Your task to perform on an android device: turn off smart reply in the gmail app Image 0: 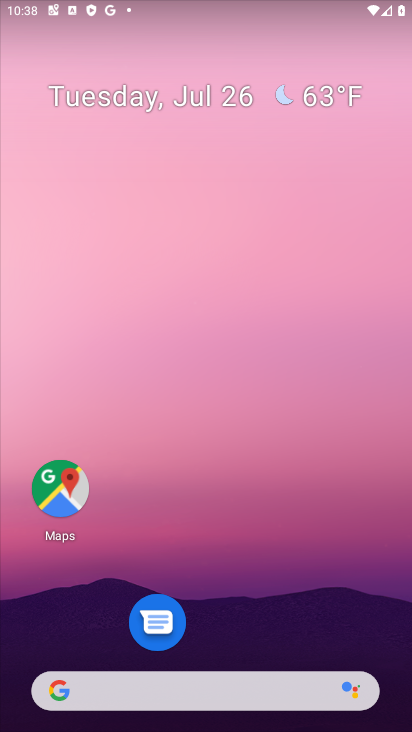
Step 0: drag from (286, 553) to (247, 258)
Your task to perform on an android device: turn off smart reply in the gmail app Image 1: 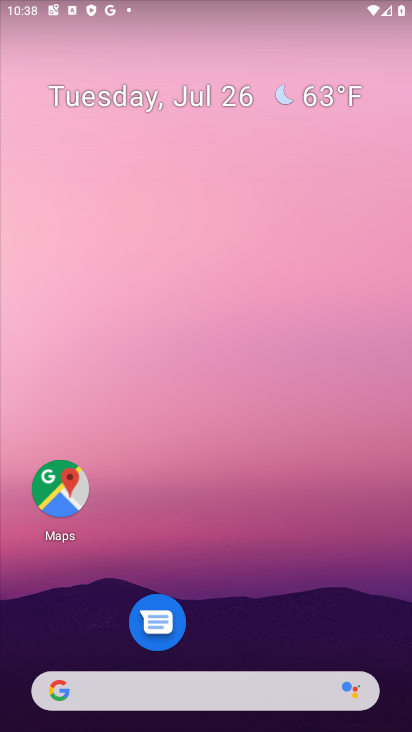
Step 1: drag from (286, 543) to (229, 117)
Your task to perform on an android device: turn off smart reply in the gmail app Image 2: 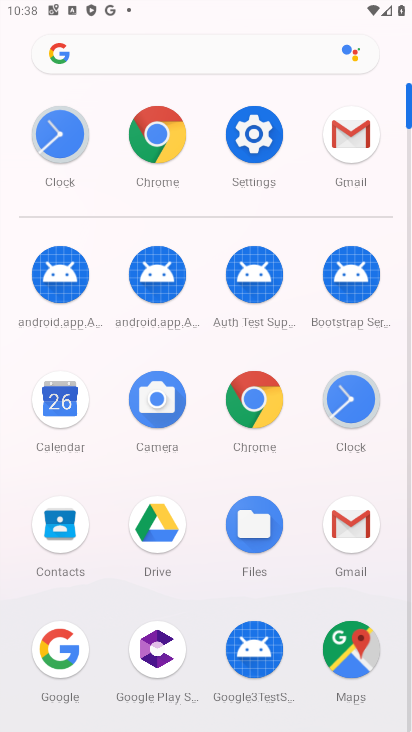
Step 2: click (371, 124)
Your task to perform on an android device: turn off smart reply in the gmail app Image 3: 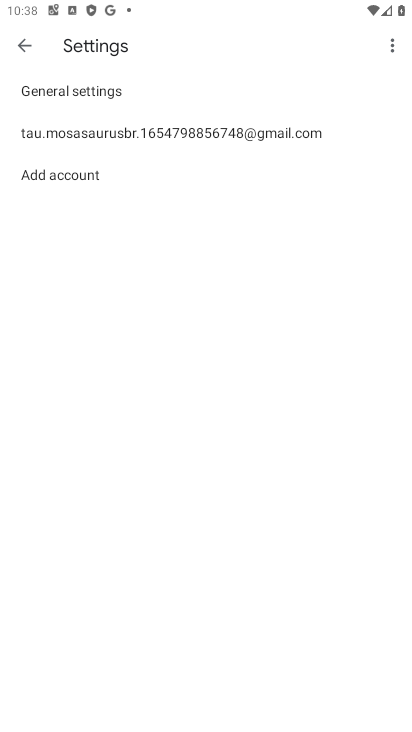
Step 3: click (42, 40)
Your task to perform on an android device: turn off smart reply in the gmail app Image 4: 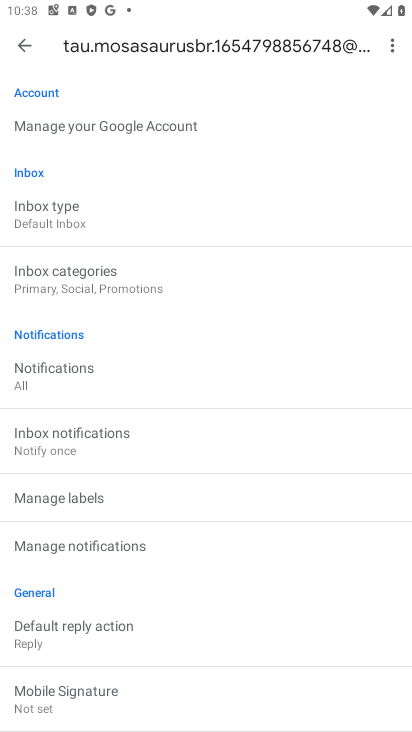
Step 4: task complete